Your task to perform on an android device: snooze an email in the gmail app Image 0: 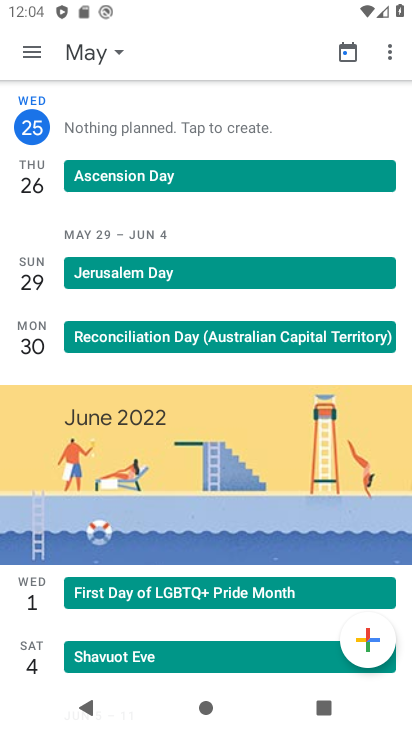
Step 0: press home button
Your task to perform on an android device: snooze an email in the gmail app Image 1: 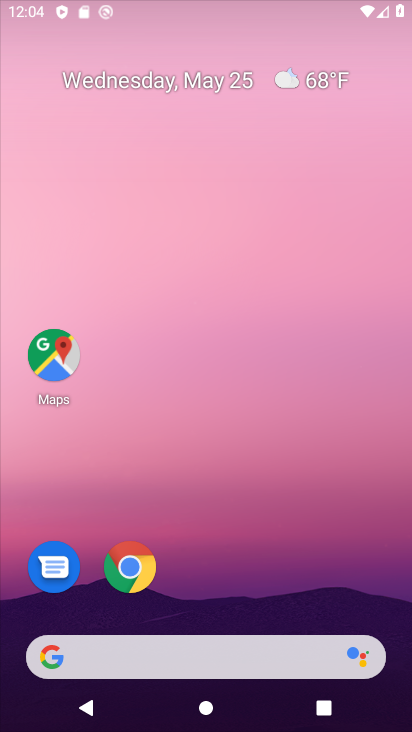
Step 1: drag from (123, 583) to (271, 57)
Your task to perform on an android device: snooze an email in the gmail app Image 2: 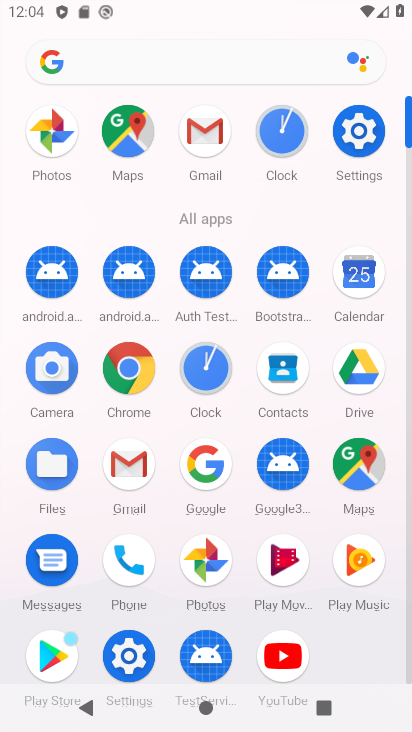
Step 2: click (135, 464)
Your task to perform on an android device: snooze an email in the gmail app Image 3: 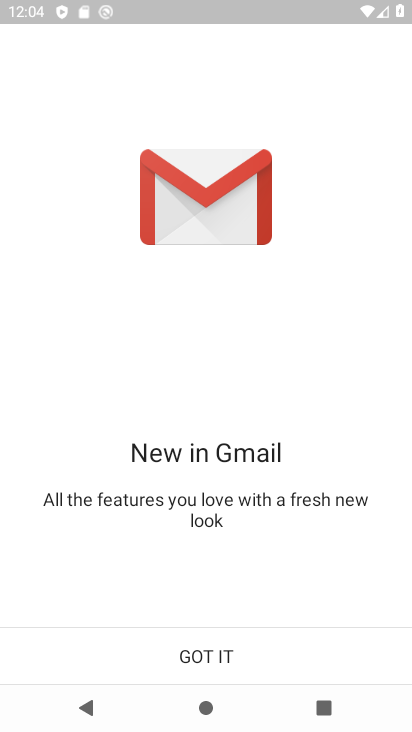
Step 3: click (221, 642)
Your task to perform on an android device: snooze an email in the gmail app Image 4: 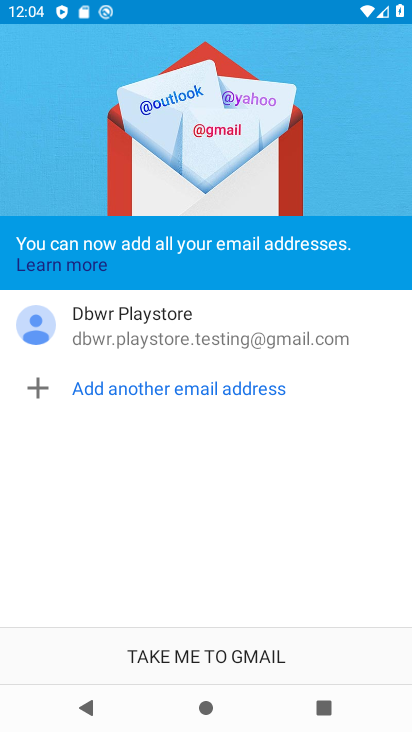
Step 4: click (237, 669)
Your task to perform on an android device: snooze an email in the gmail app Image 5: 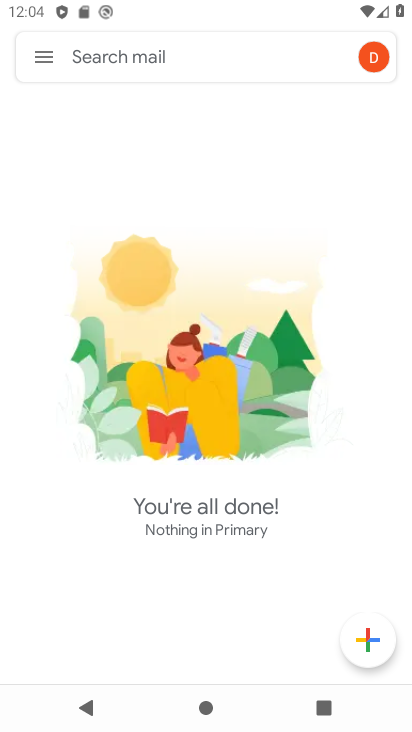
Step 5: click (49, 39)
Your task to perform on an android device: snooze an email in the gmail app Image 6: 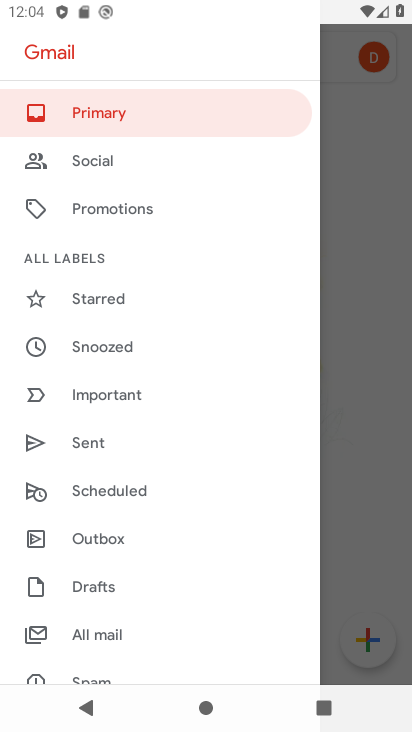
Step 6: drag from (116, 590) to (223, 239)
Your task to perform on an android device: snooze an email in the gmail app Image 7: 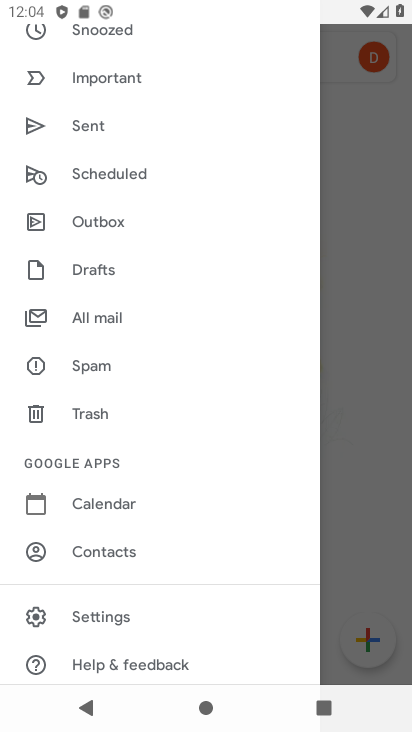
Step 7: click (143, 320)
Your task to perform on an android device: snooze an email in the gmail app Image 8: 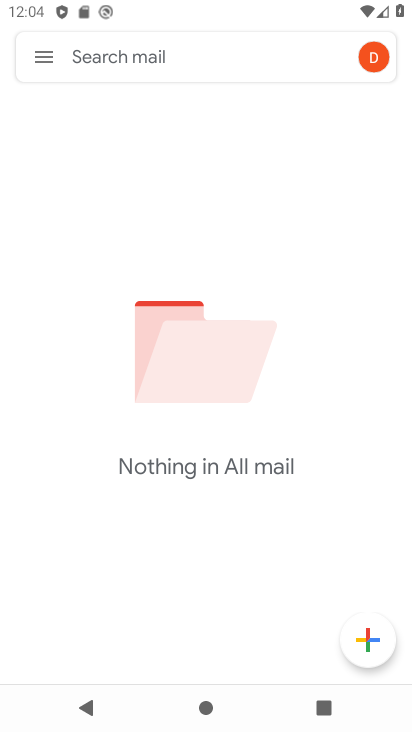
Step 8: task complete